Your task to perform on an android device: turn off javascript in the chrome app Image 0: 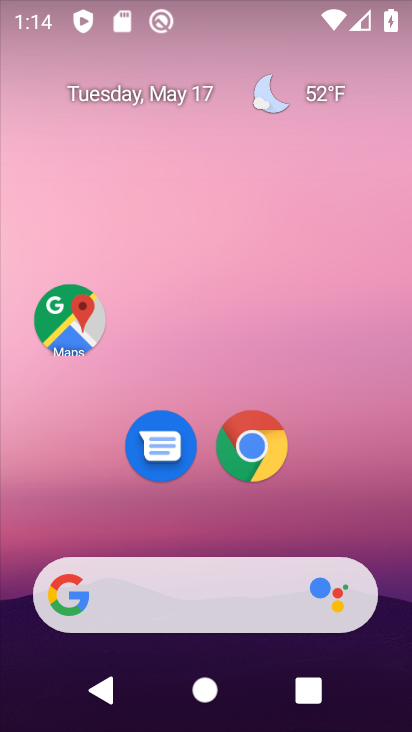
Step 0: click (268, 459)
Your task to perform on an android device: turn off javascript in the chrome app Image 1: 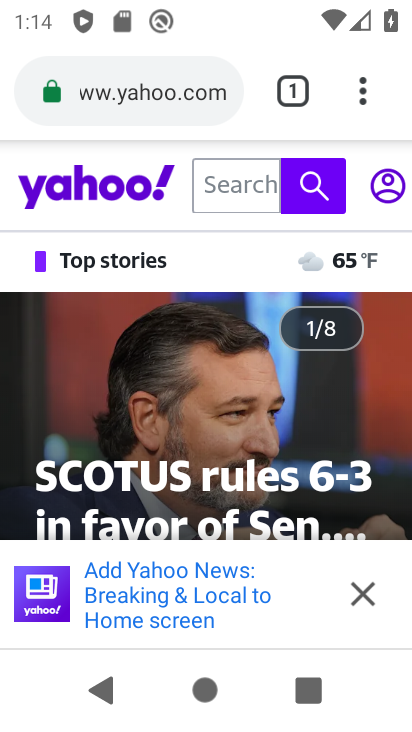
Step 1: click (369, 91)
Your task to perform on an android device: turn off javascript in the chrome app Image 2: 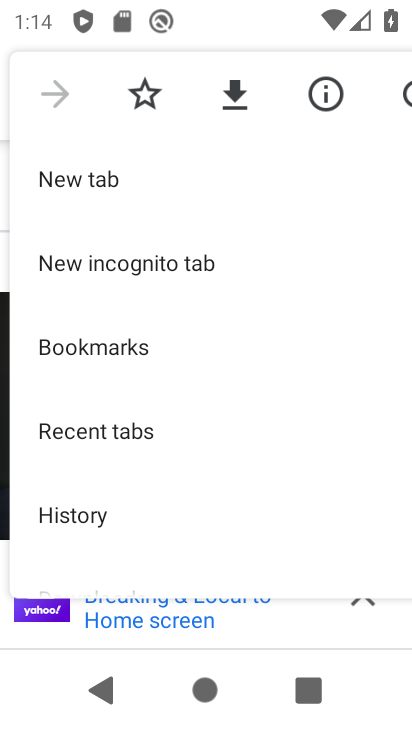
Step 2: drag from (320, 466) to (276, 258)
Your task to perform on an android device: turn off javascript in the chrome app Image 3: 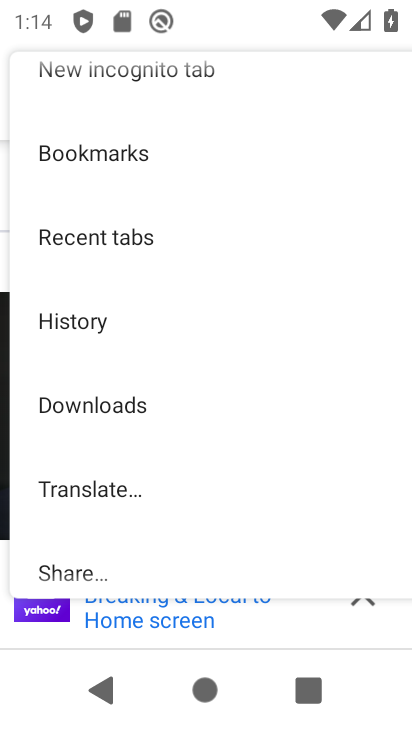
Step 3: drag from (197, 518) to (149, 241)
Your task to perform on an android device: turn off javascript in the chrome app Image 4: 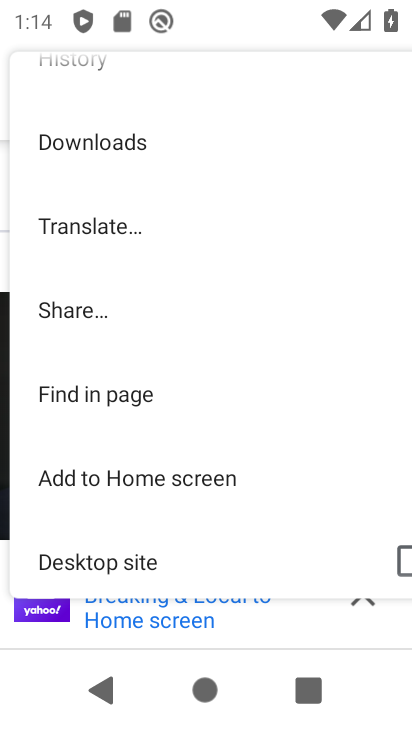
Step 4: drag from (145, 521) to (132, 293)
Your task to perform on an android device: turn off javascript in the chrome app Image 5: 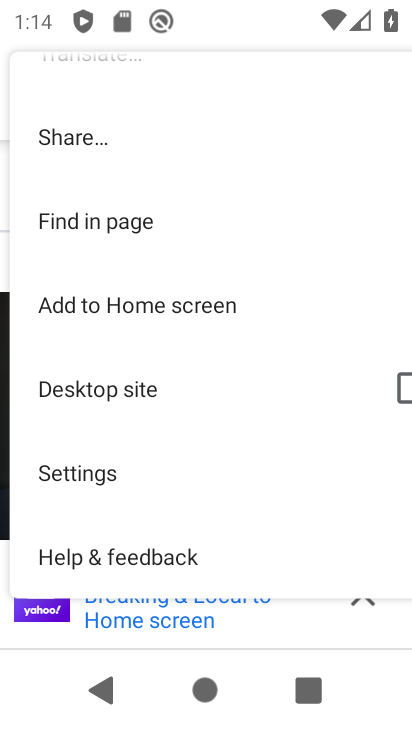
Step 5: click (128, 475)
Your task to perform on an android device: turn off javascript in the chrome app Image 6: 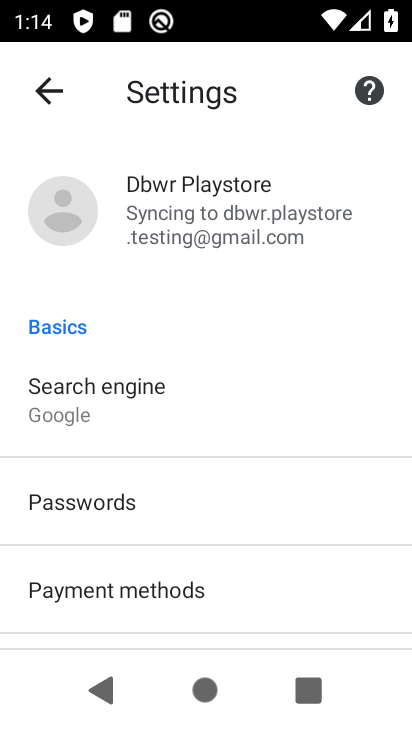
Step 6: drag from (226, 517) to (189, 266)
Your task to perform on an android device: turn off javascript in the chrome app Image 7: 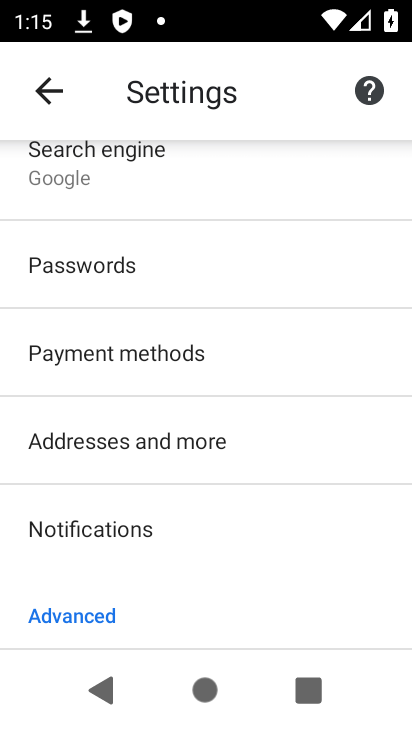
Step 7: drag from (189, 520) to (145, 267)
Your task to perform on an android device: turn off javascript in the chrome app Image 8: 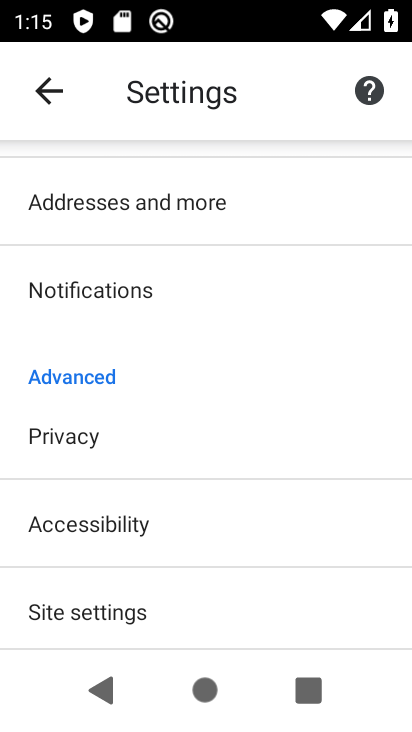
Step 8: drag from (186, 587) to (179, 368)
Your task to perform on an android device: turn off javascript in the chrome app Image 9: 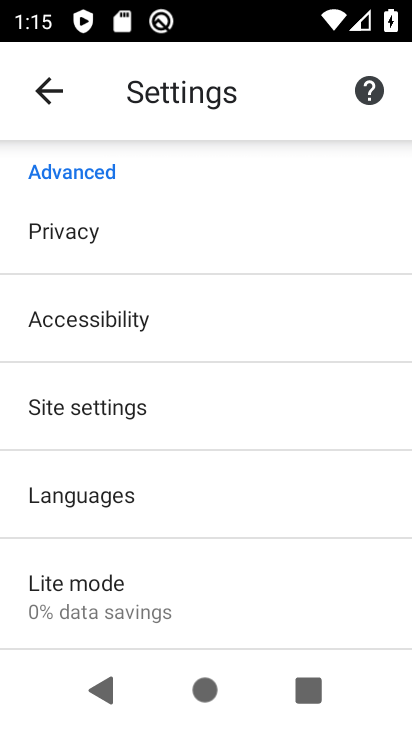
Step 9: click (159, 417)
Your task to perform on an android device: turn off javascript in the chrome app Image 10: 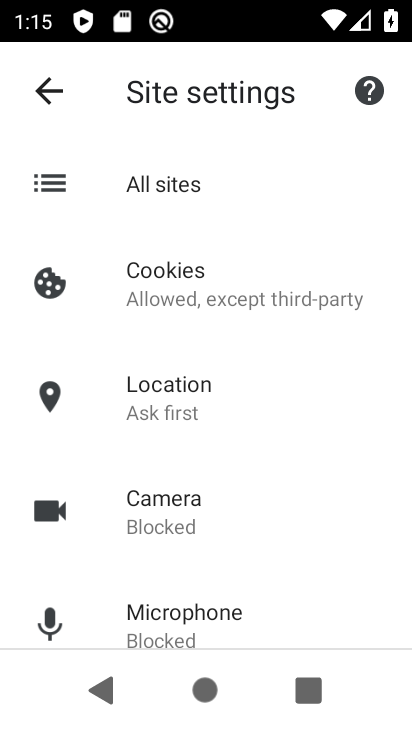
Step 10: drag from (273, 564) to (240, 304)
Your task to perform on an android device: turn off javascript in the chrome app Image 11: 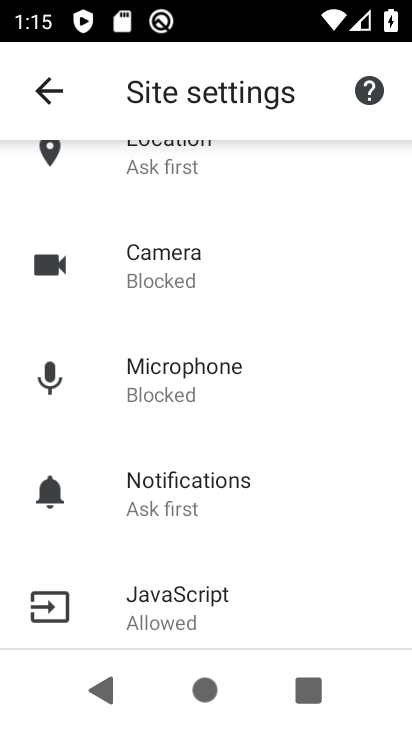
Step 11: click (216, 599)
Your task to perform on an android device: turn off javascript in the chrome app Image 12: 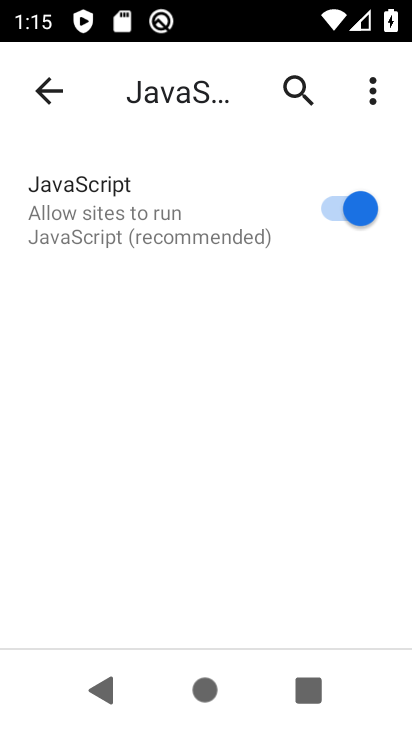
Step 12: click (347, 205)
Your task to perform on an android device: turn off javascript in the chrome app Image 13: 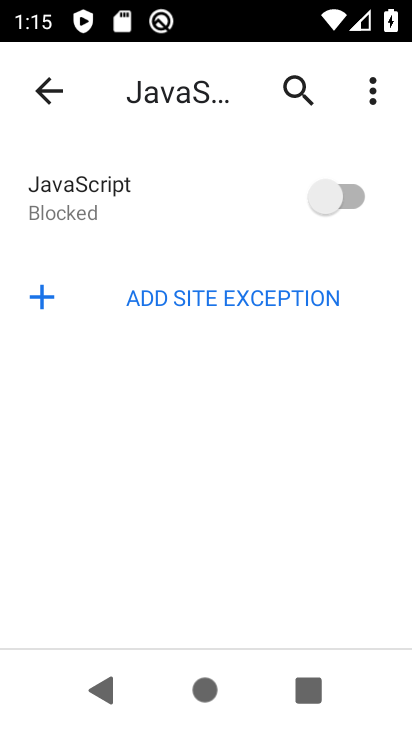
Step 13: task complete